Your task to perform on an android device: What is the recent news? Image 0: 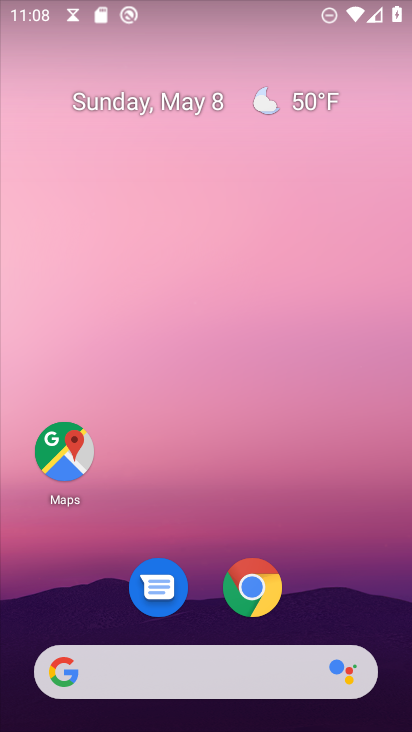
Step 0: click (244, 591)
Your task to perform on an android device: What is the recent news? Image 1: 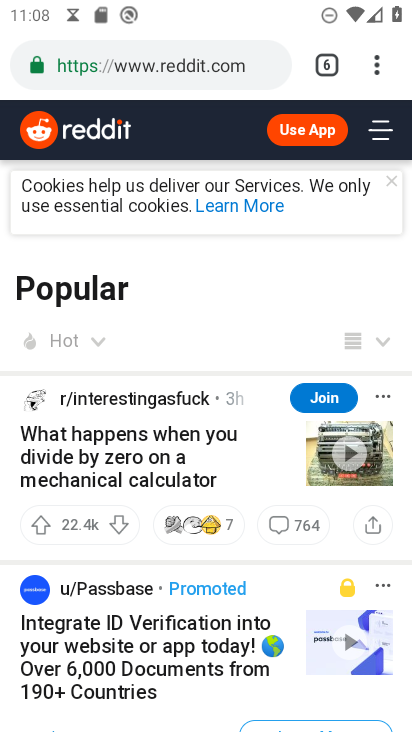
Step 1: click (331, 67)
Your task to perform on an android device: What is the recent news? Image 2: 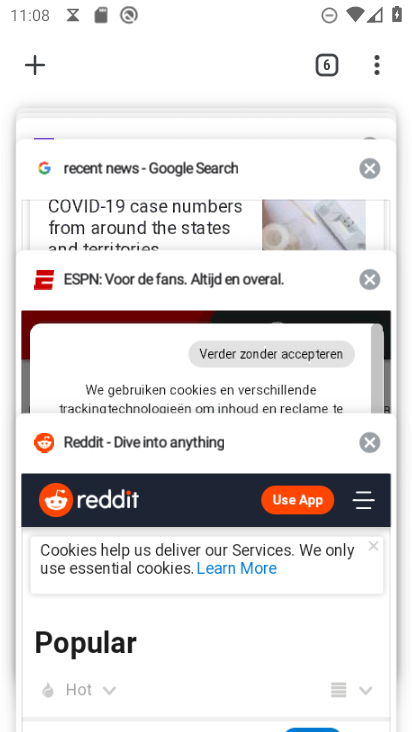
Step 2: click (151, 174)
Your task to perform on an android device: What is the recent news? Image 3: 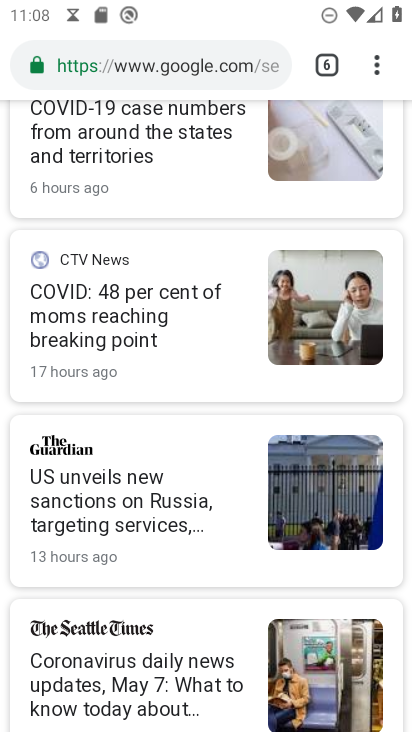
Step 3: task complete